Your task to perform on an android device: search for starred emails in the gmail app Image 0: 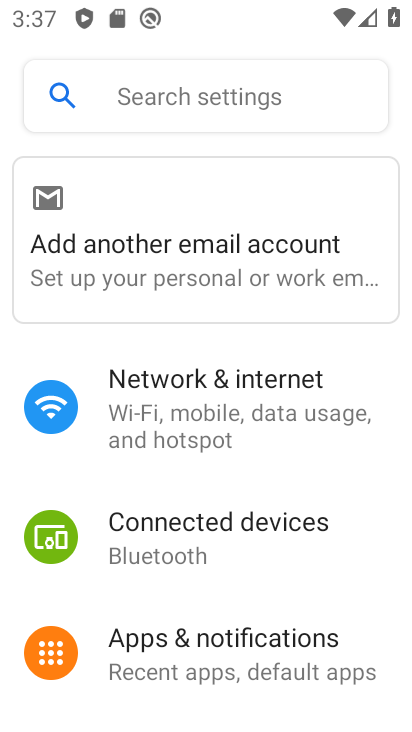
Step 0: press home button
Your task to perform on an android device: search for starred emails in the gmail app Image 1: 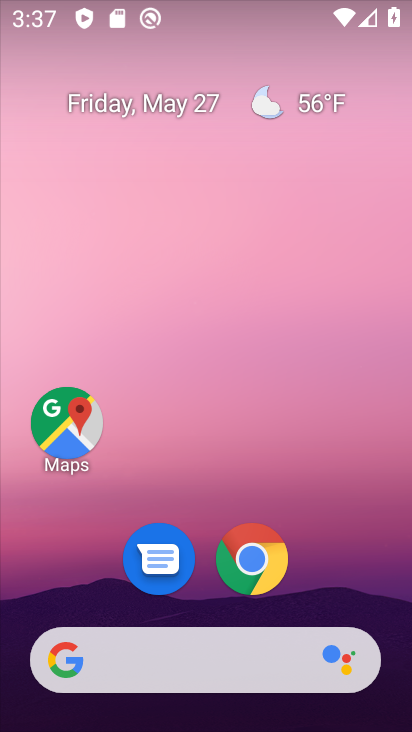
Step 1: drag from (43, 617) to (216, 154)
Your task to perform on an android device: search for starred emails in the gmail app Image 2: 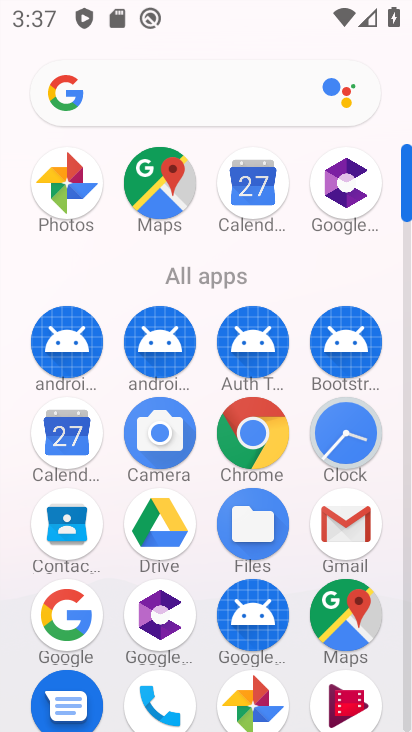
Step 2: click (366, 535)
Your task to perform on an android device: search for starred emails in the gmail app Image 3: 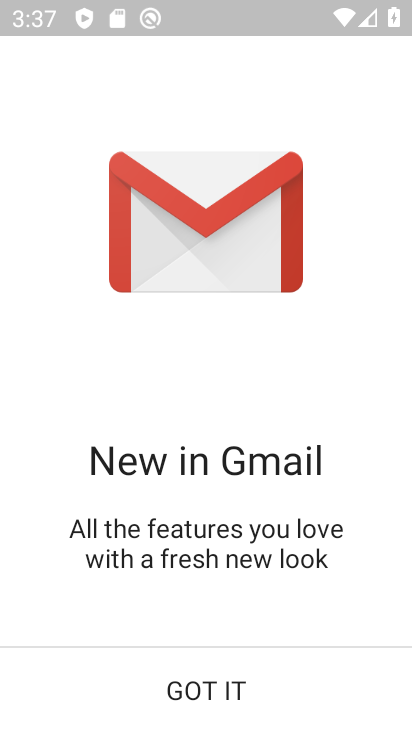
Step 3: click (237, 698)
Your task to perform on an android device: search for starred emails in the gmail app Image 4: 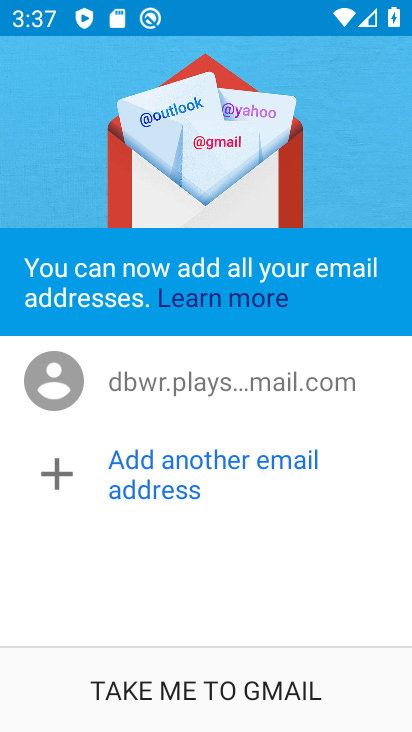
Step 4: click (304, 692)
Your task to perform on an android device: search for starred emails in the gmail app Image 5: 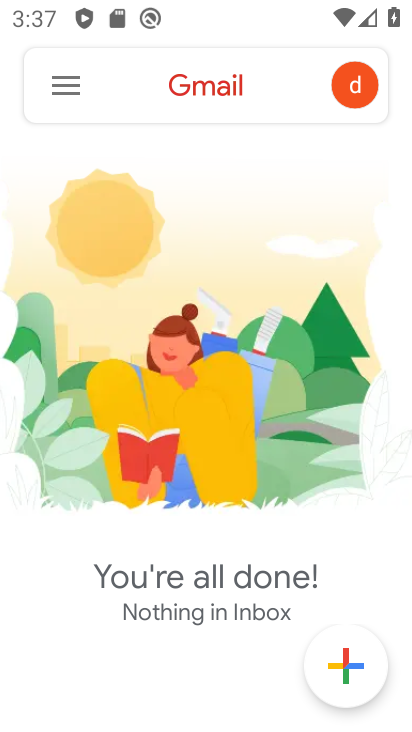
Step 5: click (89, 76)
Your task to perform on an android device: search for starred emails in the gmail app Image 6: 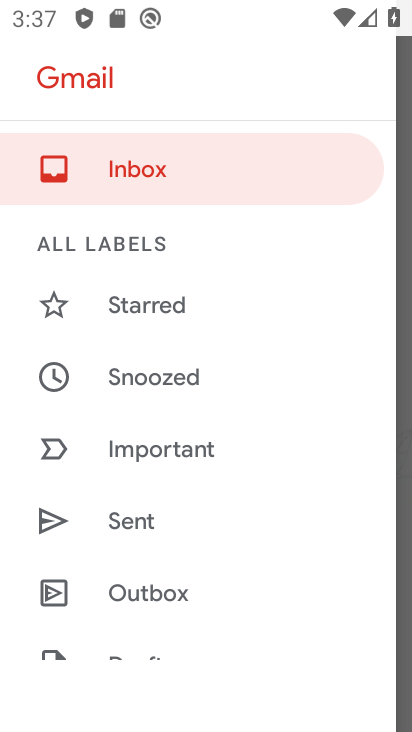
Step 6: click (179, 312)
Your task to perform on an android device: search for starred emails in the gmail app Image 7: 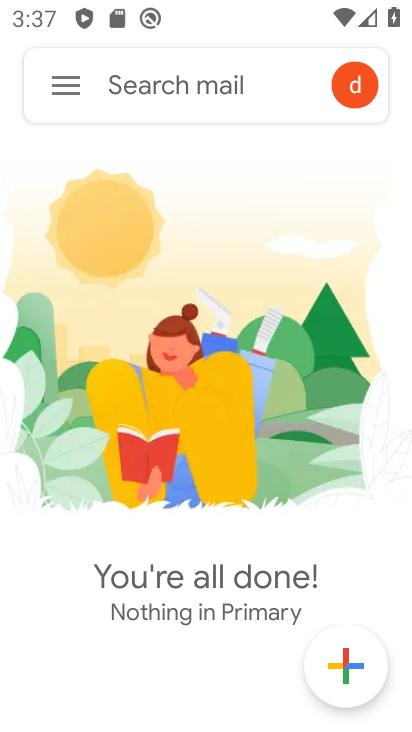
Step 7: task complete